Your task to perform on an android device: Open Wikipedia Image 0: 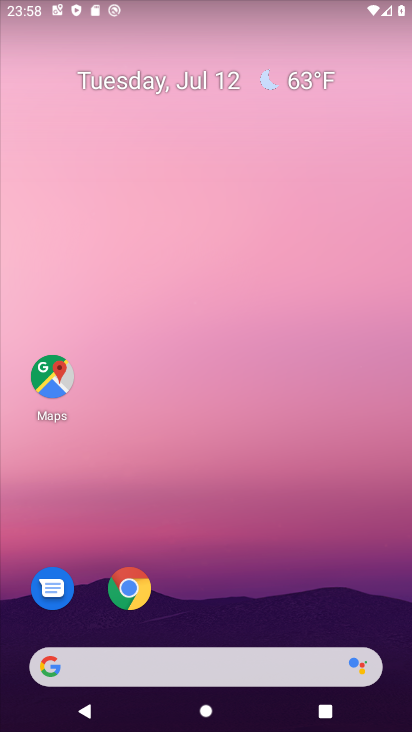
Step 0: drag from (53, 695) to (138, 85)
Your task to perform on an android device: Open Wikipedia Image 1: 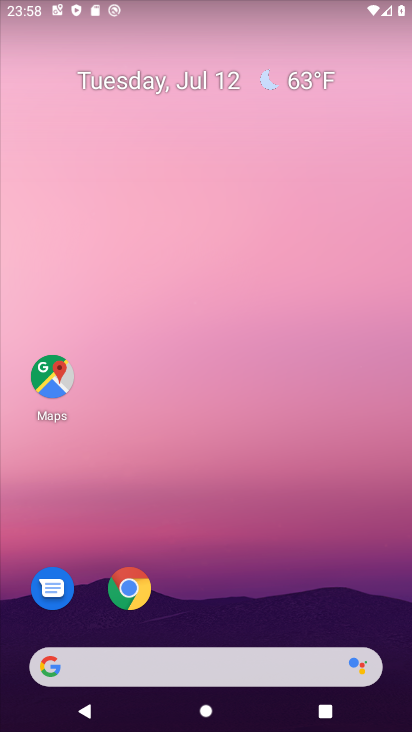
Step 1: click (119, 653)
Your task to perform on an android device: Open Wikipedia Image 2: 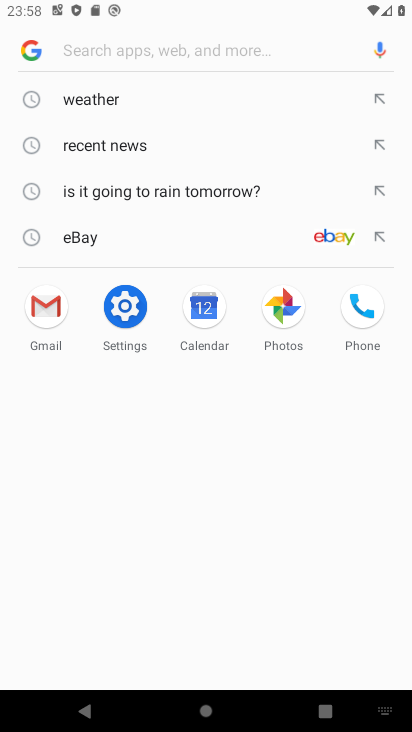
Step 2: type "Wikipedia"
Your task to perform on an android device: Open Wikipedia Image 3: 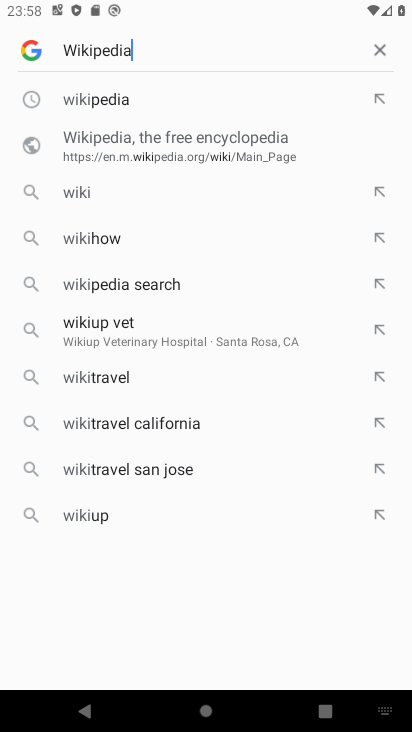
Step 3: type ""
Your task to perform on an android device: Open Wikipedia Image 4: 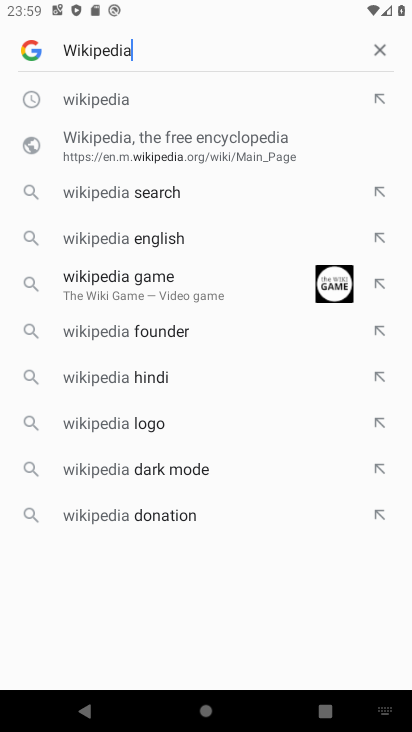
Step 4: click (80, 91)
Your task to perform on an android device: Open Wikipedia Image 5: 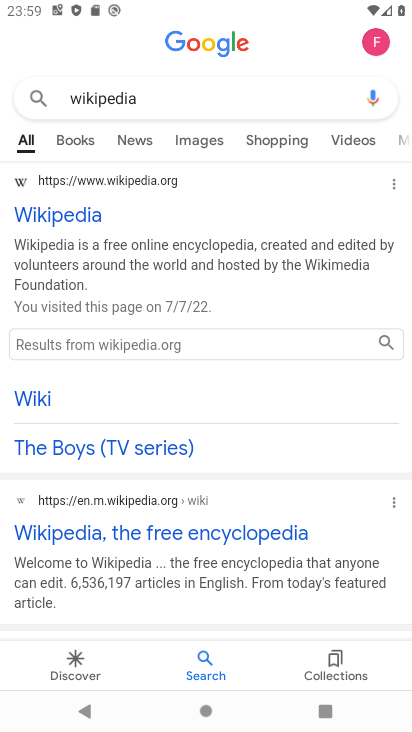
Step 5: task complete